Your task to perform on an android device: turn off sleep mode Image 0: 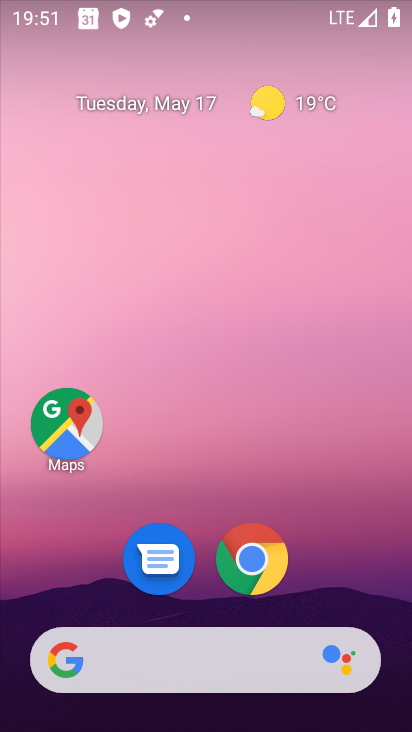
Step 0: drag from (186, 635) to (248, 242)
Your task to perform on an android device: turn off sleep mode Image 1: 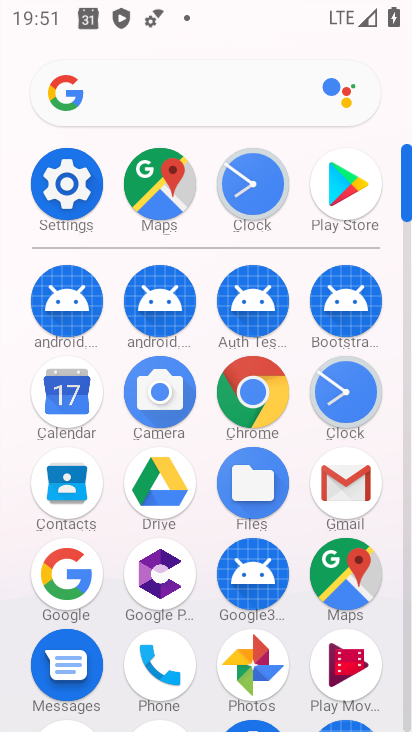
Step 1: click (57, 199)
Your task to perform on an android device: turn off sleep mode Image 2: 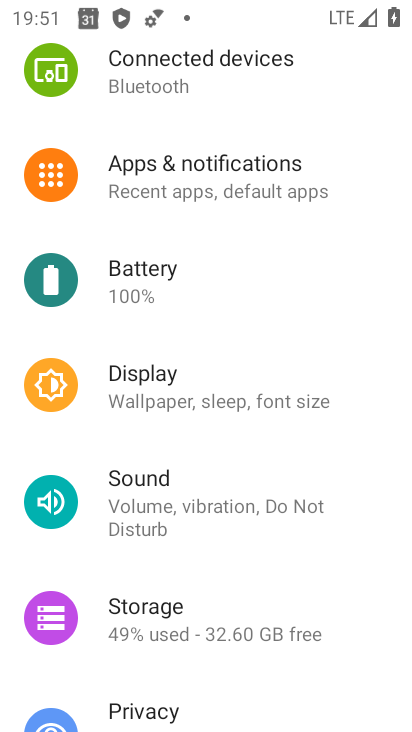
Step 2: click (159, 407)
Your task to perform on an android device: turn off sleep mode Image 3: 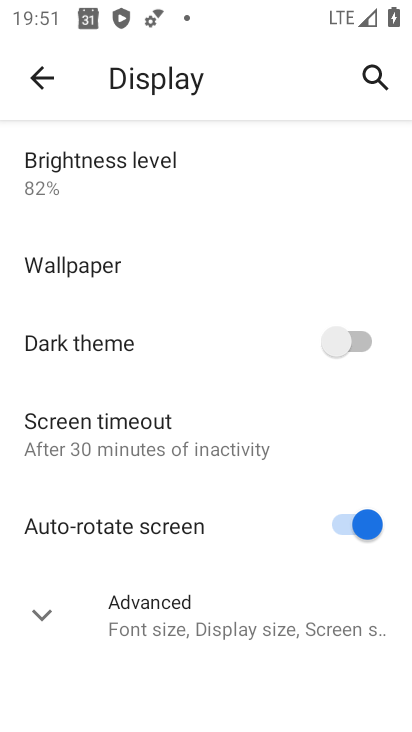
Step 3: click (133, 452)
Your task to perform on an android device: turn off sleep mode Image 4: 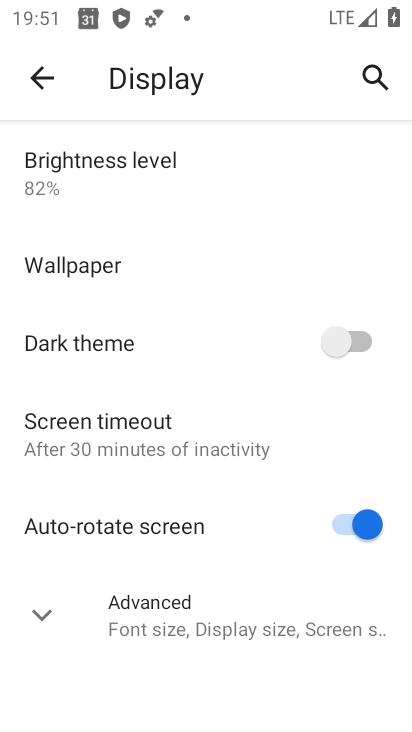
Step 4: click (133, 452)
Your task to perform on an android device: turn off sleep mode Image 5: 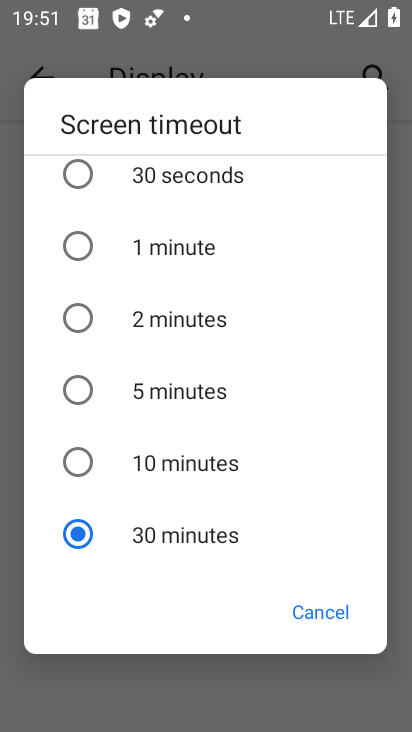
Step 5: click (96, 255)
Your task to perform on an android device: turn off sleep mode Image 6: 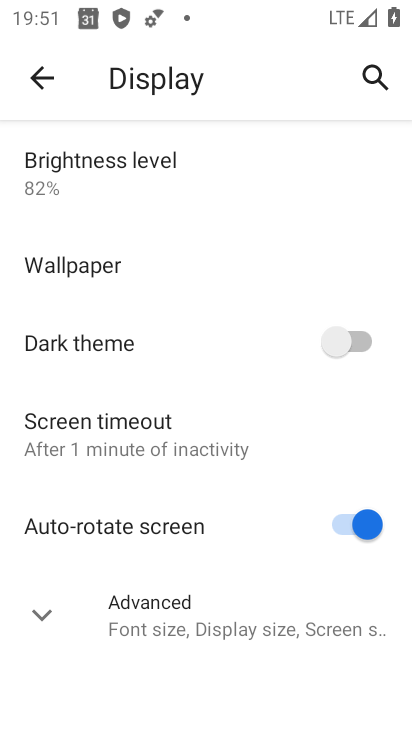
Step 6: task complete